Your task to perform on an android device: toggle sleep mode Image 0: 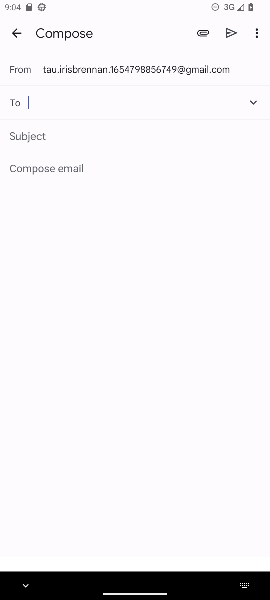
Step 0: press home button
Your task to perform on an android device: toggle sleep mode Image 1: 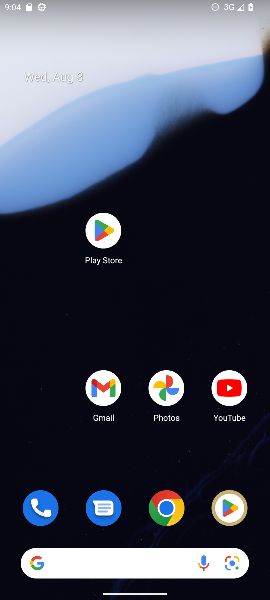
Step 1: drag from (181, 552) to (199, 86)
Your task to perform on an android device: toggle sleep mode Image 2: 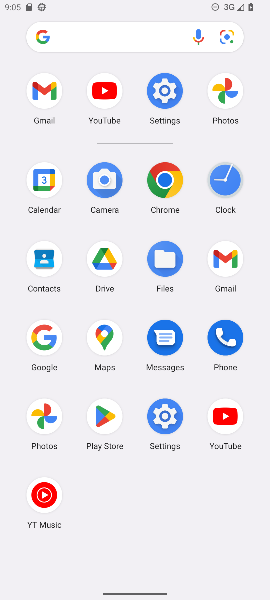
Step 2: click (161, 400)
Your task to perform on an android device: toggle sleep mode Image 3: 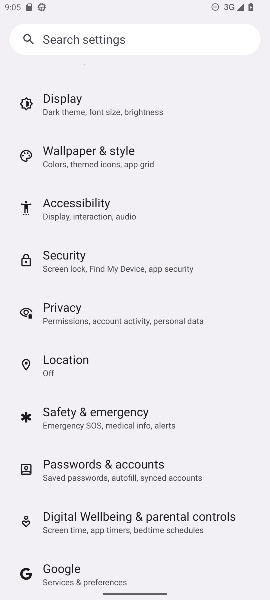
Step 3: task complete